Your task to perform on an android device: change timer sound Image 0: 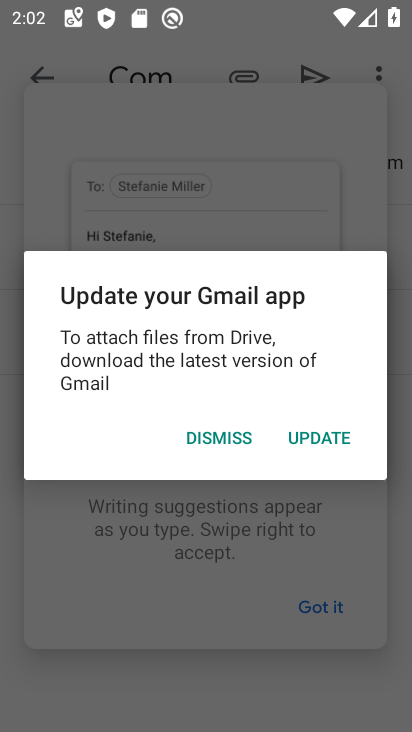
Step 0: press back button
Your task to perform on an android device: change timer sound Image 1: 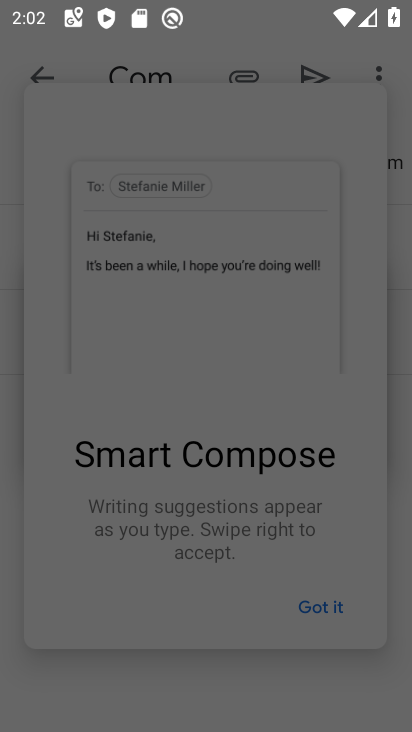
Step 1: press home button
Your task to perform on an android device: change timer sound Image 2: 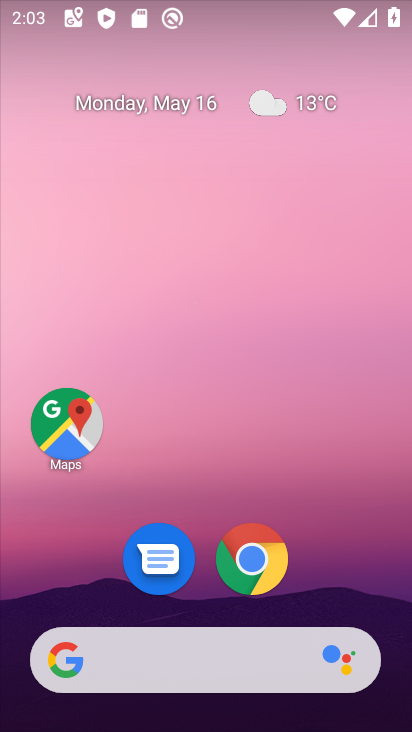
Step 2: drag from (181, 527) to (245, 38)
Your task to perform on an android device: change timer sound Image 3: 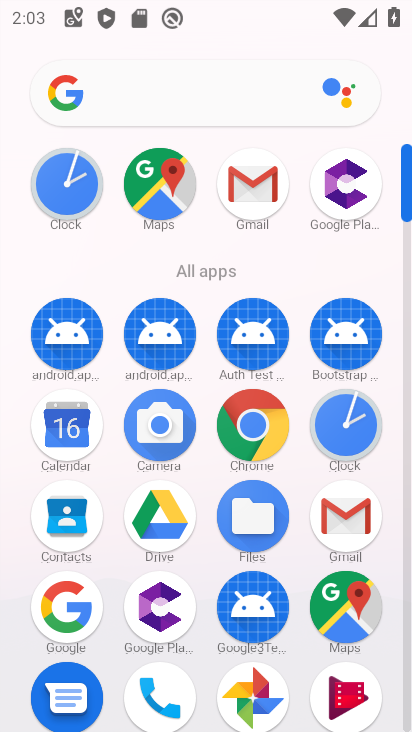
Step 3: click (351, 426)
Your task to perform on an android device: change timer sound Image 4: 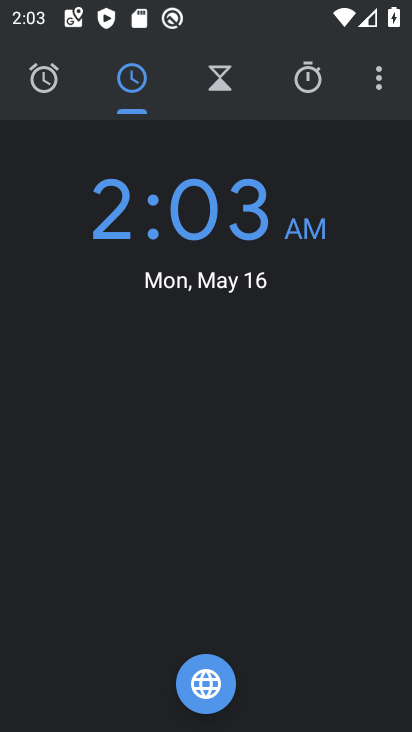
Step 4: click (376, 70)
Your task to perform on an android device: change timer sound Image 5: 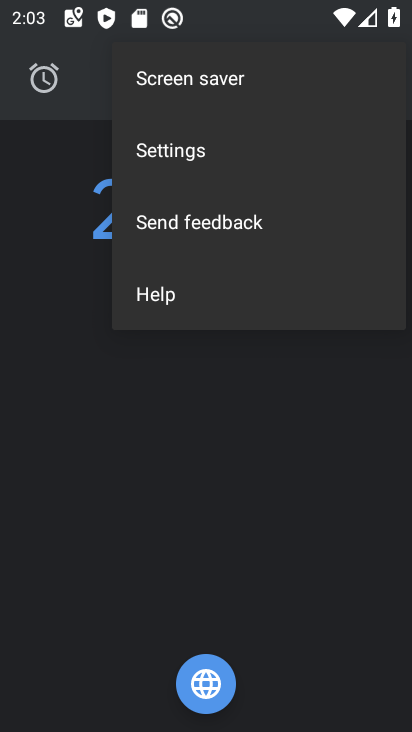
Step 5: click (173, 157)
Your task to perform on an android device: change timer sound Image 6: 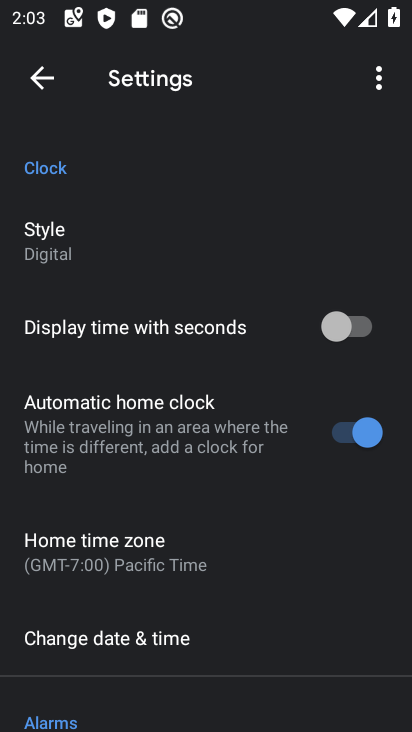
Step 6: drag from (81, 589) to (176, 251)
Your task to perform on an android device: change timer sound Image 7: 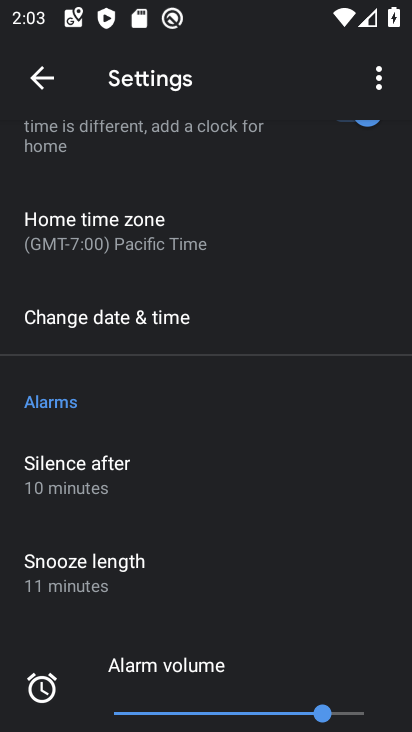
Step 7: drag from (140, 572) to (237, 155)
Your task to perform on an android device: change timer sound Image 8: 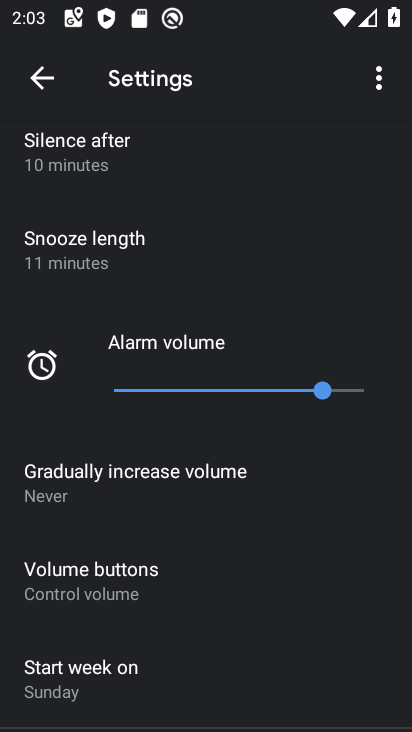
Step 8: drag from (117, 662) to (234, 207)
Your task to perform on an android device: change timer sound Image 9: 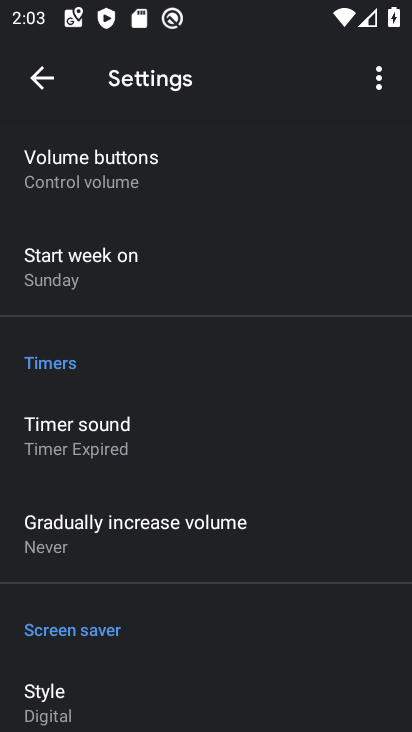
Step 9: click (106, 440)
Your task to perform on an android device: change timer sound Image 10: 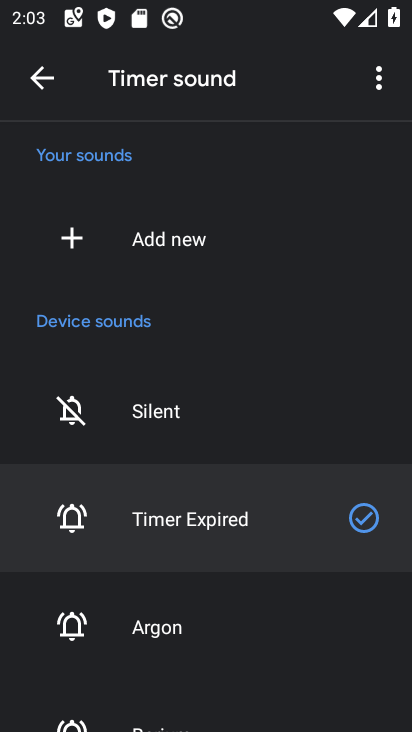
Step 10: click (174, 644)
Your task to perform on an android device: change timer sound Image 11: 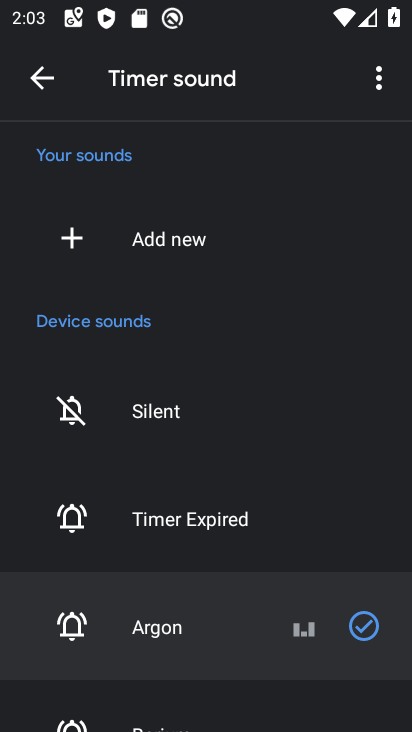
Step 11: task complete